Your task to perform on an android device: manage bookmarks in the chrome app Image 0: 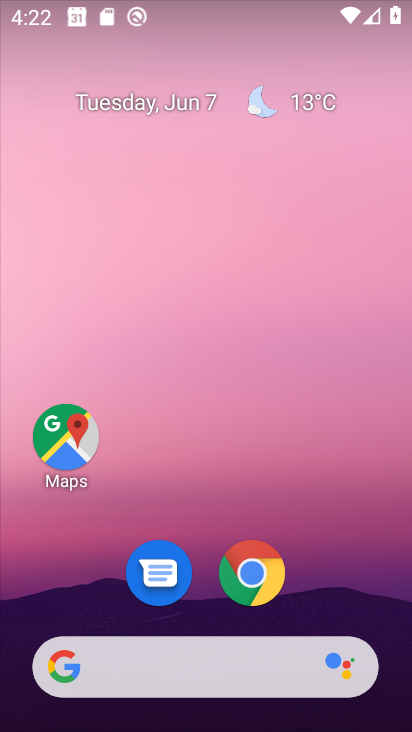
Step 0: press home button
Your task to perform on an android device: manage bookmarks in the chrome app Image 1: 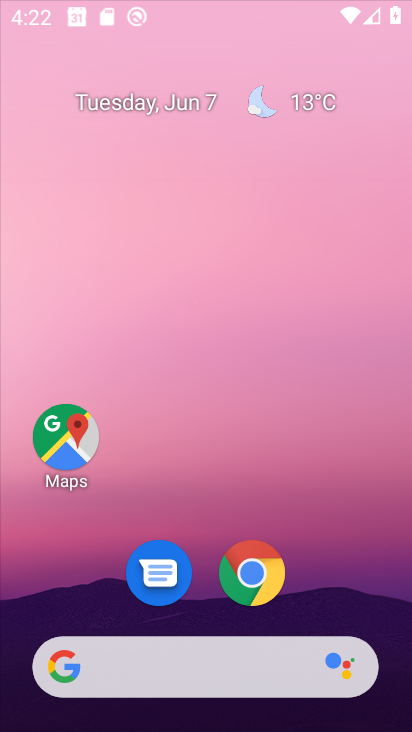
Step 1: drag from (324, 597) to (271, 75)
Your task to perform on an android device: manage bookmarks in the chrome app Image 2: 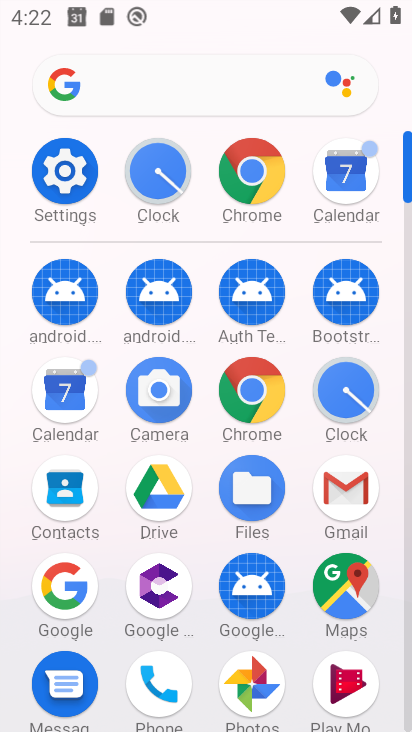
Step 2: click (263, 186)
Your task to perform on an android device: manage bookmarks in the chrome app Image 3: 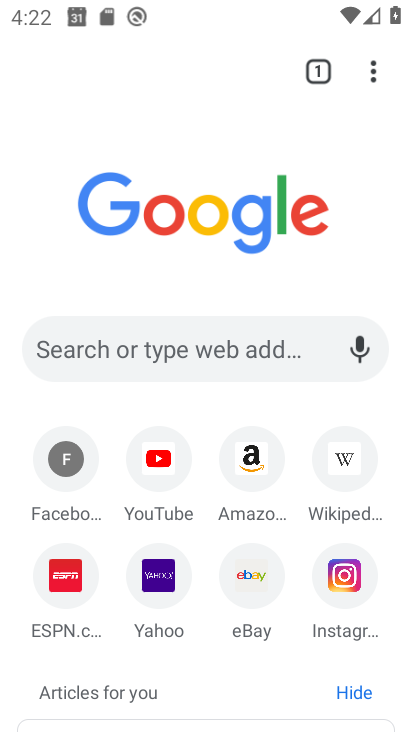
Step 3: task complete